Your task to perform on an android device: turn on data saver in the chrome app Image 0: 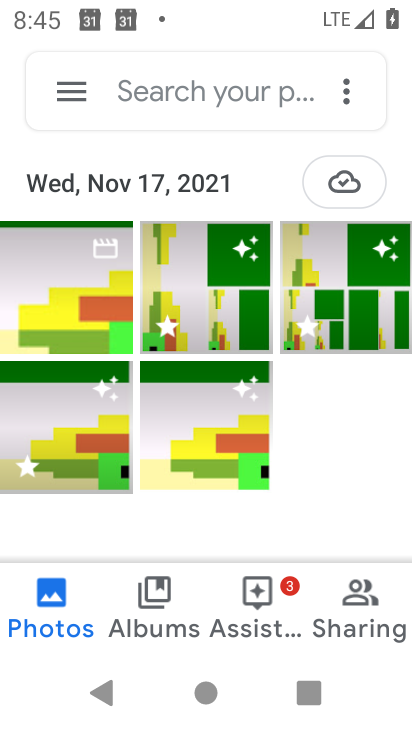
Step 0: press home button
Your task to perform on an android device: turn on data saver in the chrome app Image 1: 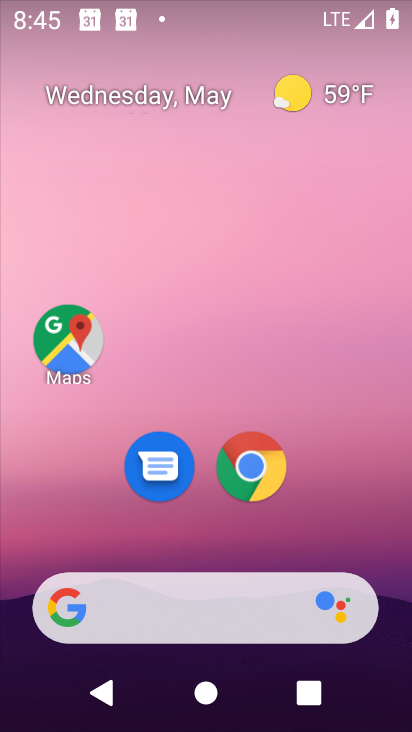
Step 1: click (240, 459)
Your task to perform on an android device: turn on data saver in the chrome app Image 2: 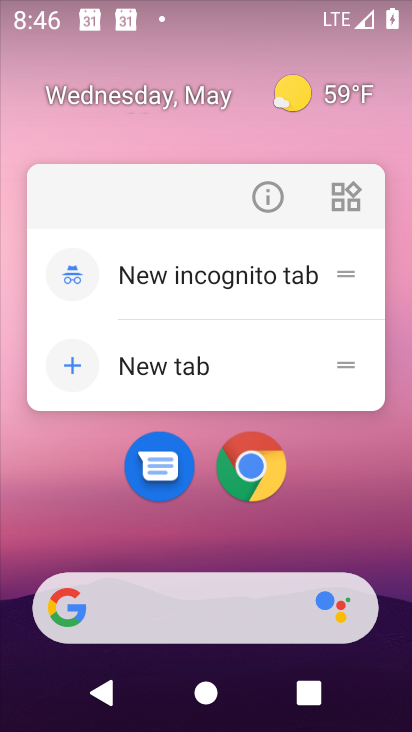
Step 2: click (257, 451)
Your task to perform on an android device: turn on data saver in the chrome app Image 3: 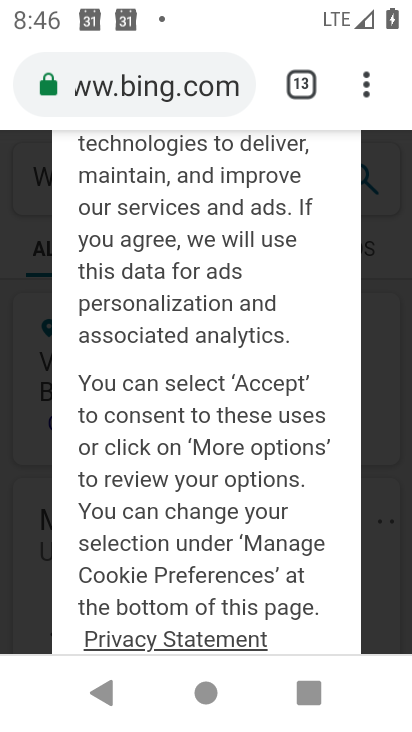
Step 3: click (346, 81)
Your task to perform on an android device: turn on data saver in the chrome app Image 4: 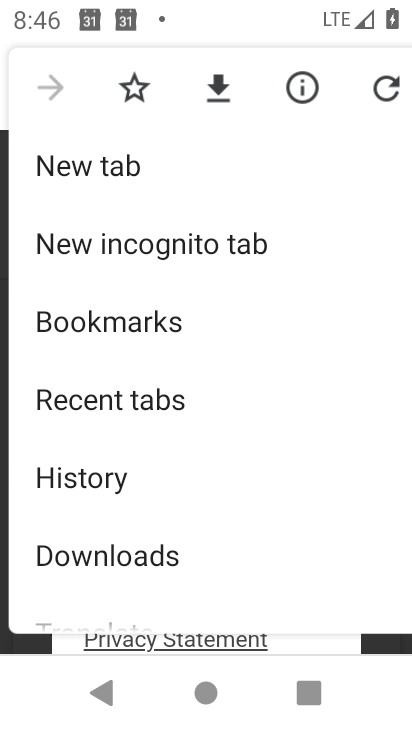
Step 4: drag from (242, 526) to (254, 243)
Your task to perform on an android device: turn on data saver in the chrome app Image 5: 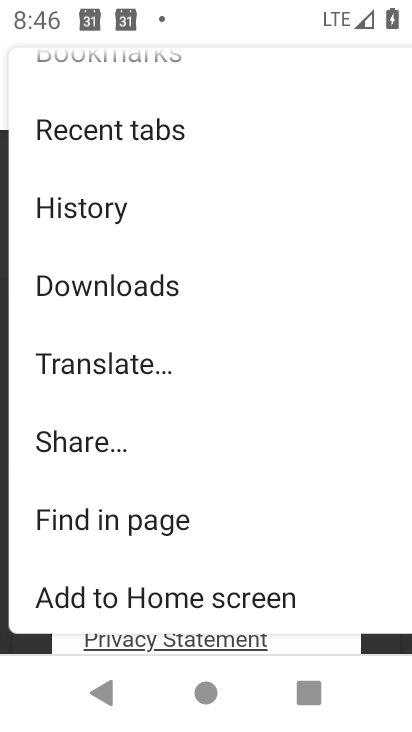
Step 5: drag from (157, 526) to (217, 199)
Your task to perform on an android device: turn on data saver in the chrome app Image 6: 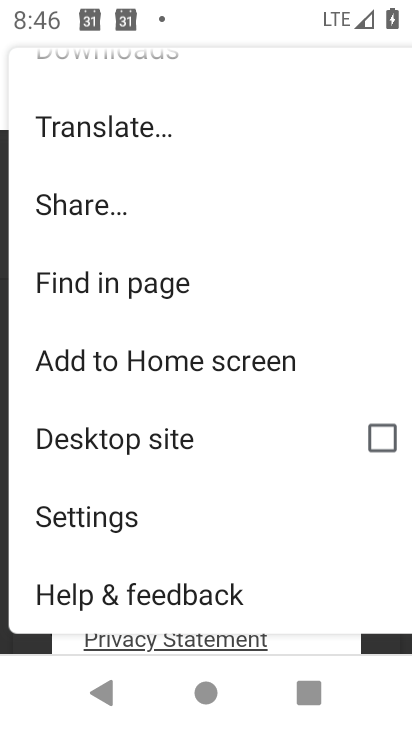
Step 6: click (125, 518)
Your task to perform on an android device: turn on data saver in the chrome app Image 7: 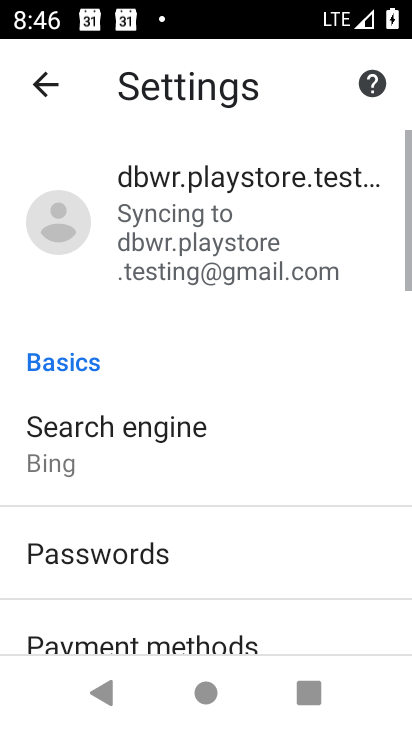
Step 7: drag from (216, 596) to (295, 208)
Your task to perform on an android device: turn on data saver in the chrome app Image 8: 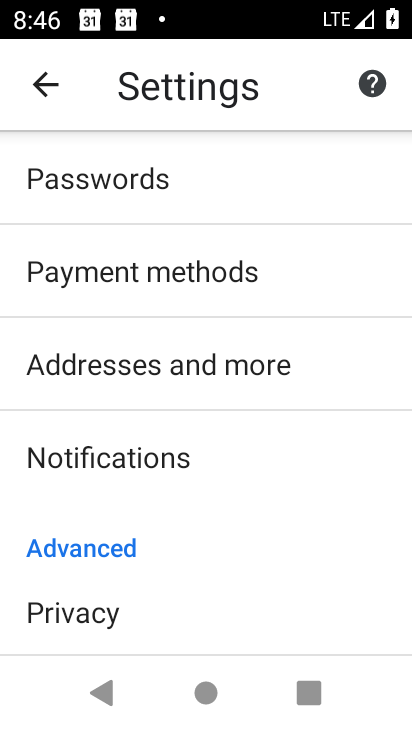
Step 8: drag from (177, 604) to (241, 280)
Your task to perform on an android device: turn on data saver in the chrome app Image 9: 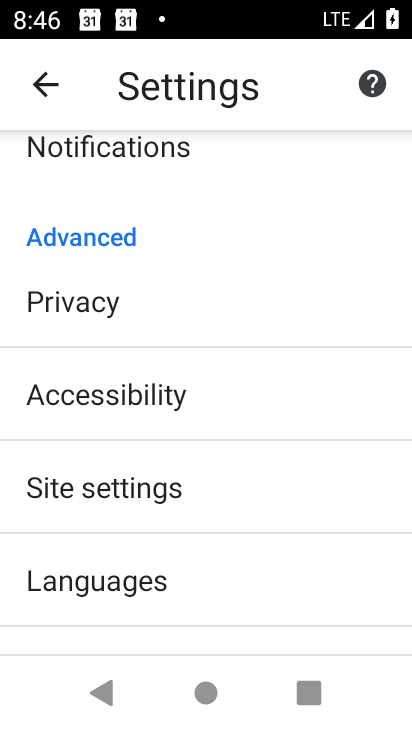
Step 9: drag from (140, 605) to (188, 437)
Your task to perform on an android device: turn on data saver in the chrome app Image 10: 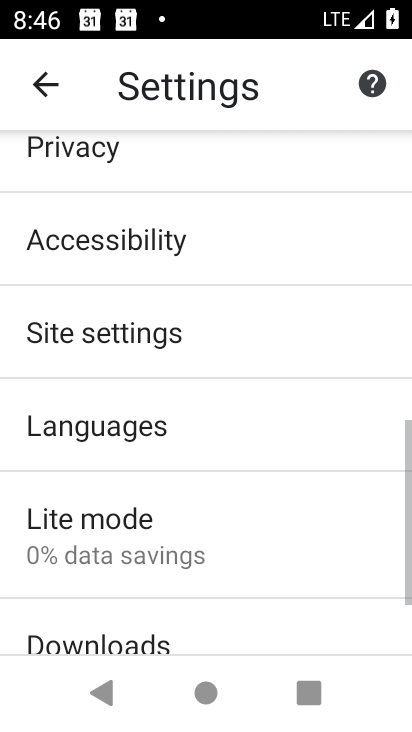
Step 10: click (137, 556)
Your task to perform on an android device: turn on data saver in the chrome app Image 11: 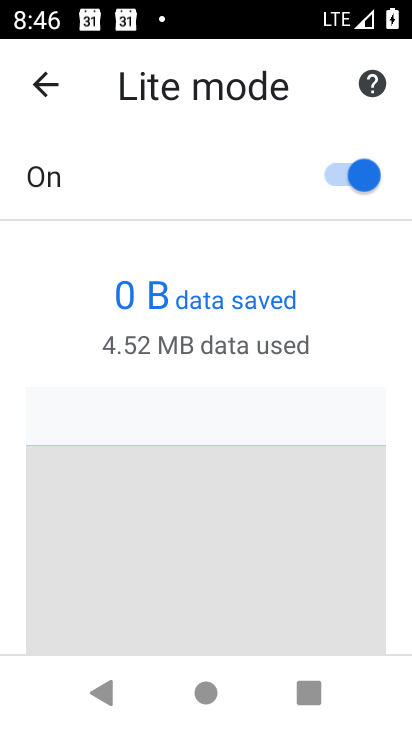
Step 11: task complete